Your task to perform on an android device: Clear all items from cart on walmart. Image 0: 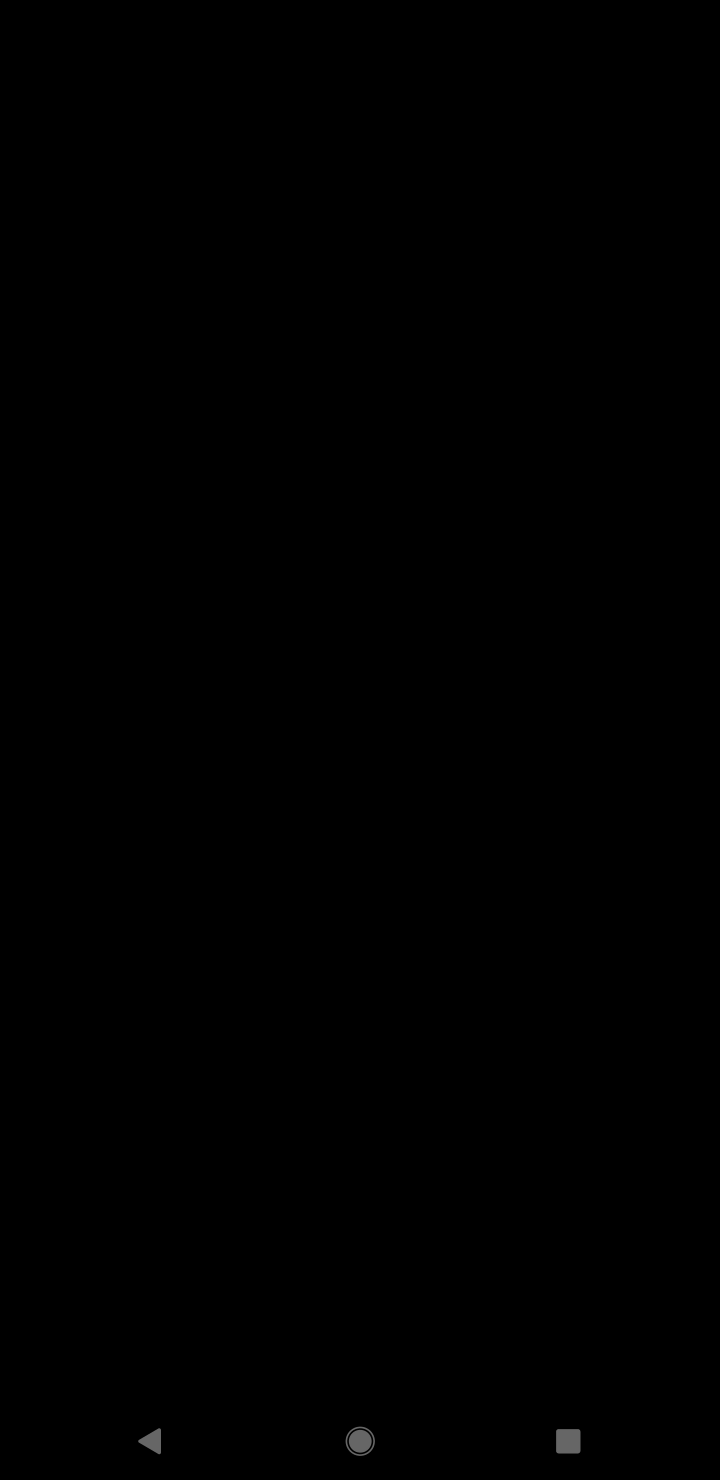
Step 0: task complete